Your task to perform on an android device: What's on my calendar today? Image 0: 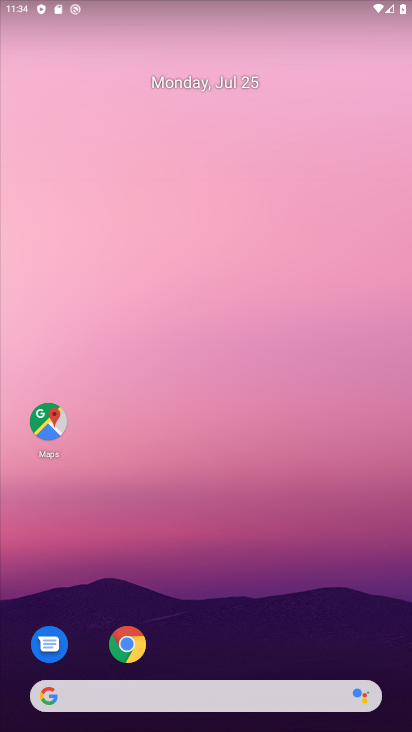
Step 0: drag from (254, 52) to (331, 6)
Your task to perform on an android device: What's on my calendar today? Image 1: 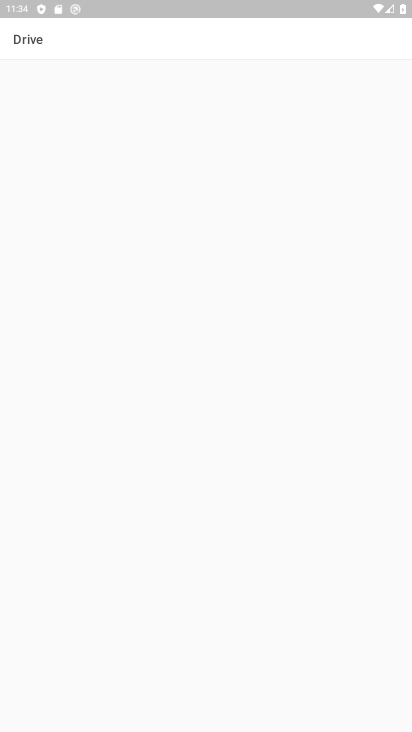
Step 1: press home button
Your task to perform on an android device: What's on my calendar today? Image 2: 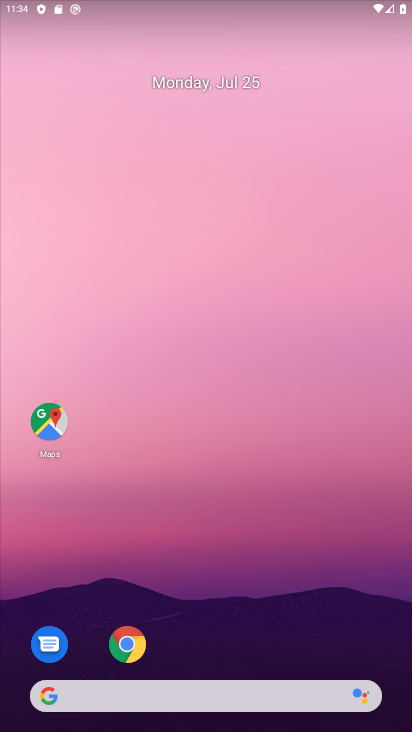
Step 2: drag from (273, 580) to (262, 0)
Your task to perform on an android device: What's on my calendar today? Image 3: 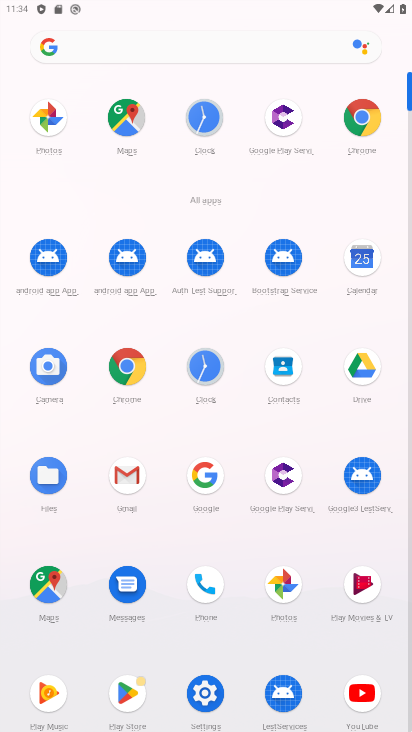
Step 3: click (358, 266)
Your task to perform on an android device: What's on my calendar today? Image 4: 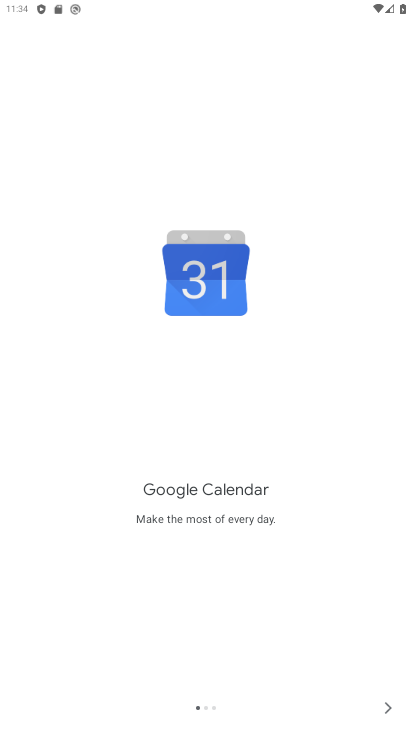
Step 4: click (384, 712)
Your task to perform on an android device: What's on my calendar today? Image 5: 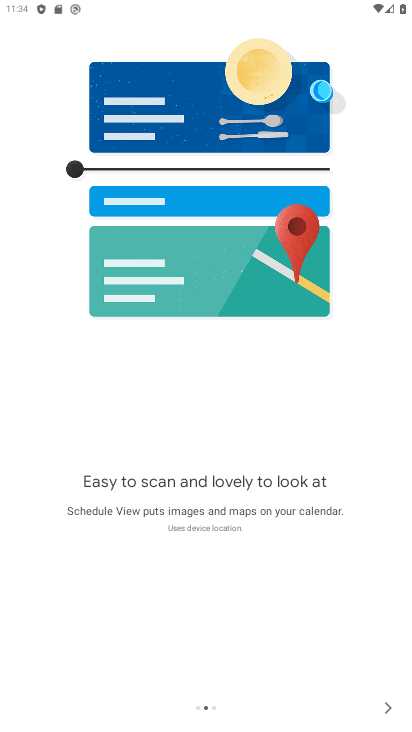
Step 5: click (384, 711)
Your task to perform on an android device: What's on my calendar today? Image 6: 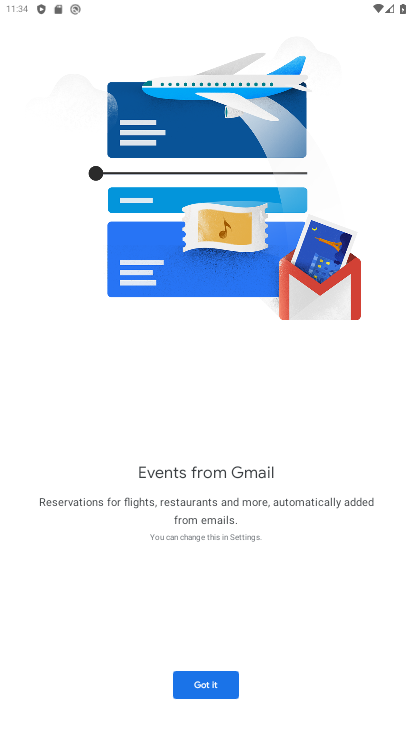
Step 6: click (200, 689)
Your task to perform on an android device: What's on my calendar today? Image 7: 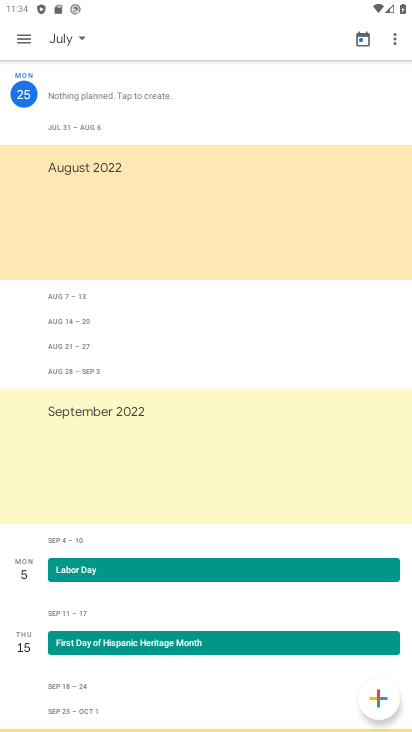
Step 7: click (56, 33)
Your task to perform on an android device: What's on my calendar today? Image 8: 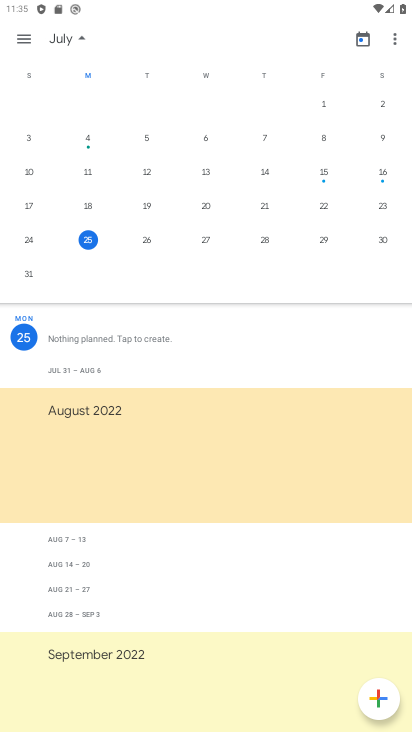
Step 8: click (87, 243)
Your task to perform on an android device: What's on my calendar today? Image 9: 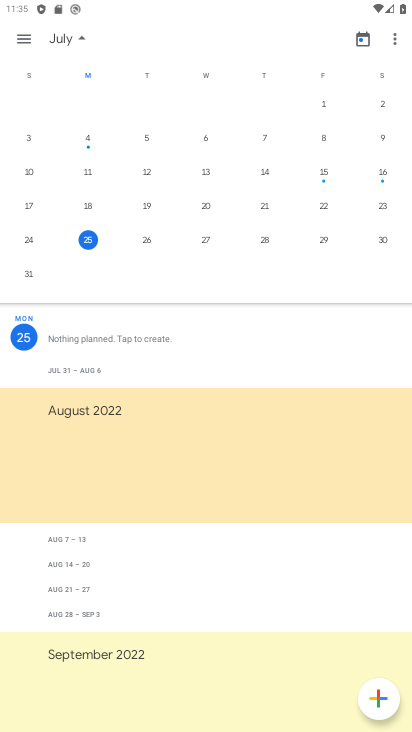
Step 9: task complete